Your task to perform on an android device: Go to battery settings Image 0: 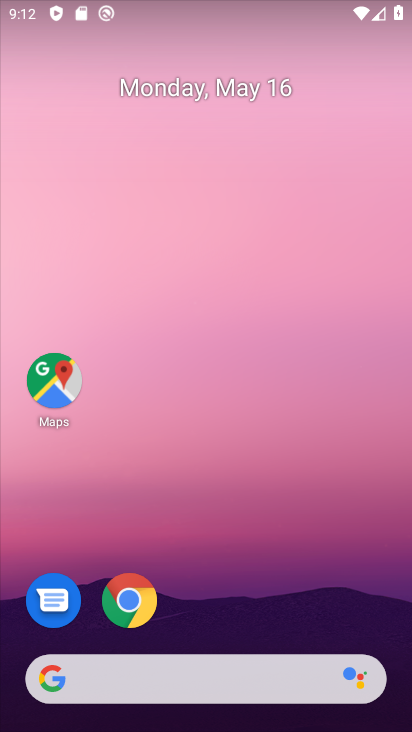
Step 0: drag from (209, 647) to (270, 121)
Your task to perform on an android device: Go to battery settings Image 1: 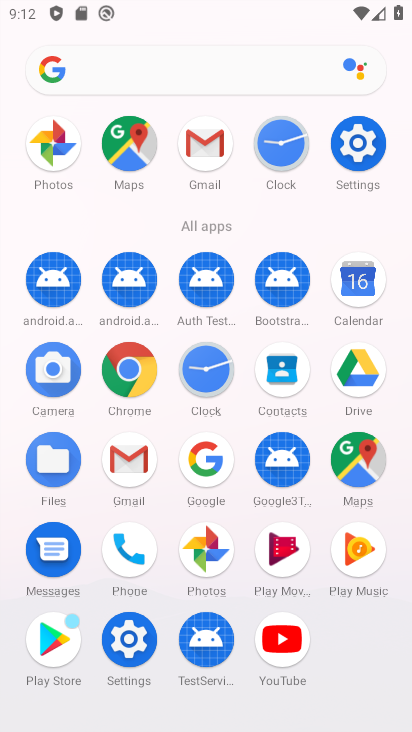
Step 1: click (140, 641)
Your task to perform on an android device: Go to battery settings Image 2: 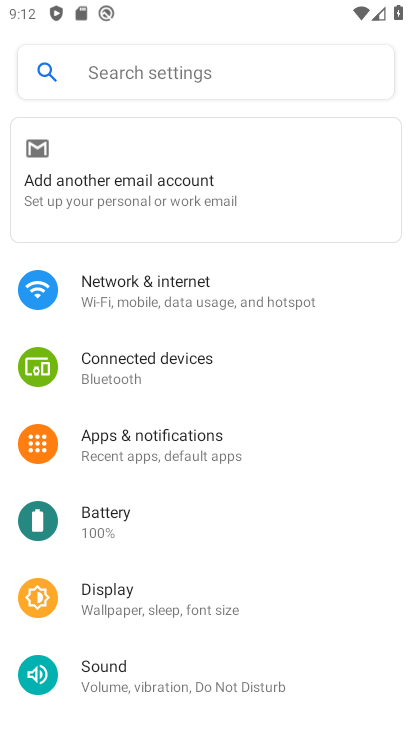
Step 2: drag from (128, 688) to (183, 431)
Your task to perform on an android device: Go to battery settings Image 3: 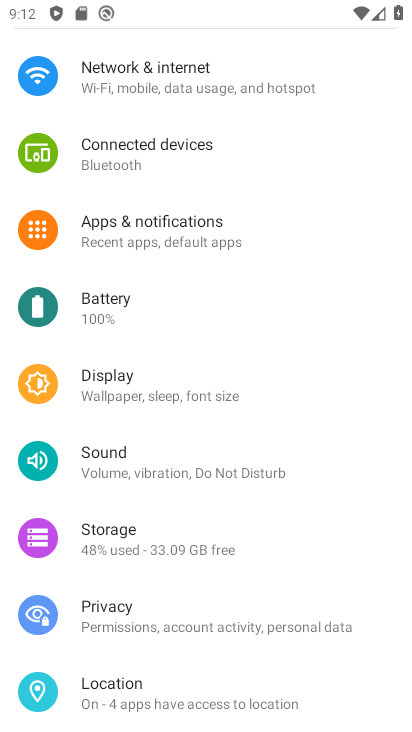
Step 3: click (155, 320)
Your task to perform on an android device: Go to battery settings Image 4: 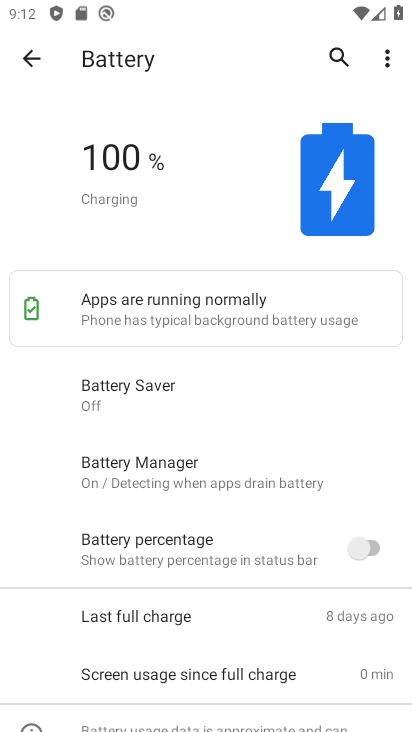
Step 4: task complete